Your task to perform on an android device: Open privacy settings Image 0: 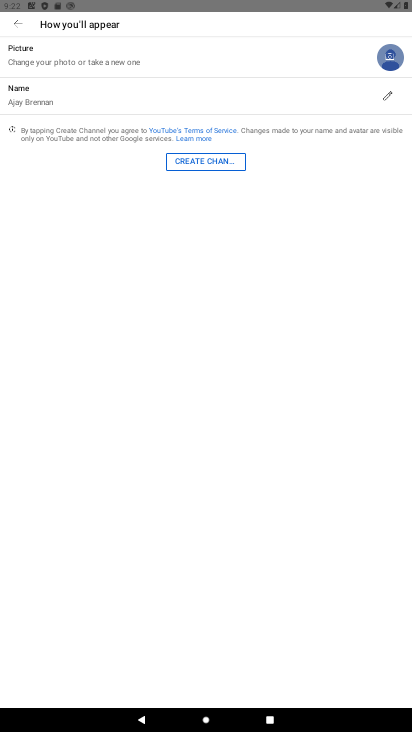
Step 0: press home button
Your task to perform on an android device: Open privacy settings Image 1: 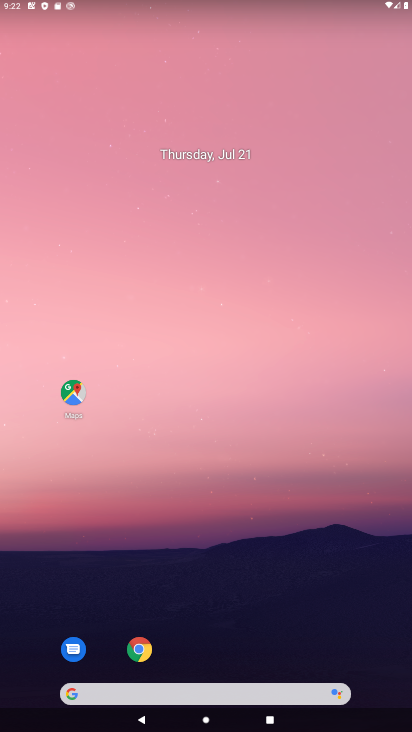
Step 1: drag from (196, 627) to (188, 67)
Your task to perform on an android device: Open privacy settings Image 2: 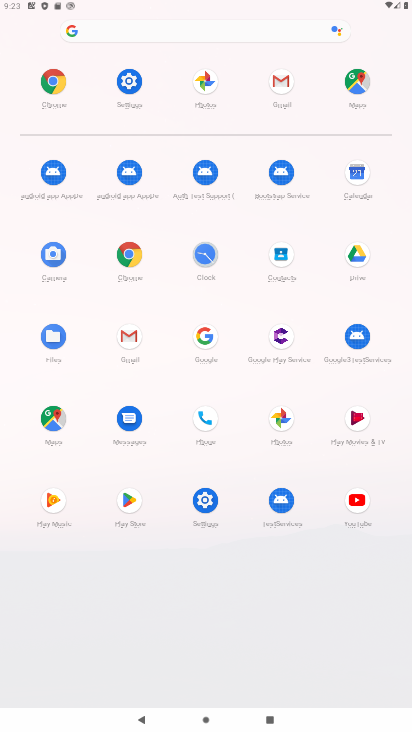
Step 2: click (213, 512)
Your task to perform on an android device: Open privacy settings Image 3: 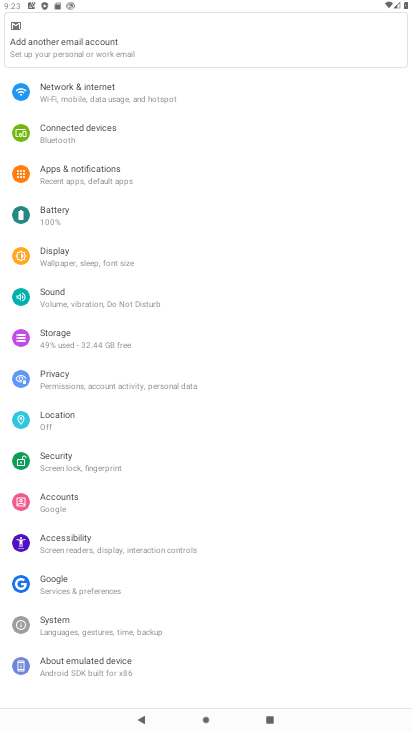
Step 3: click (82, 376)
Your task to perform on an android device: Open privacy settings Image 4: 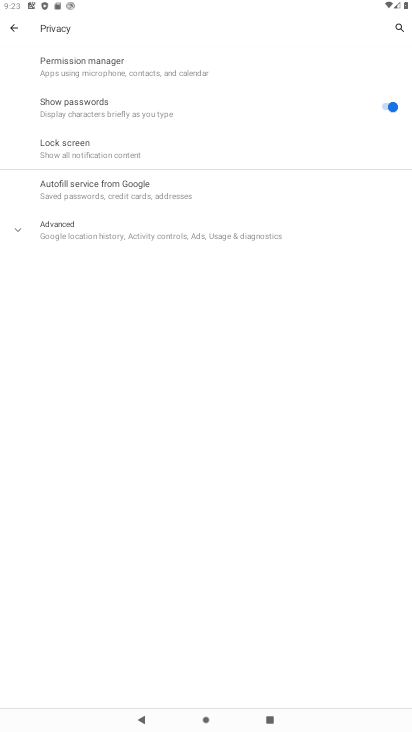
Step 4: task complete